Your task to perform on an android device: What's the weather today? Image 0: 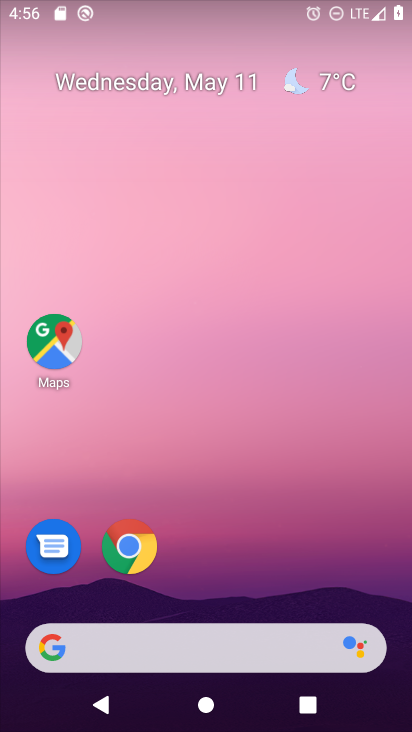
Step 0: drag from (203, 660) to (227, 128)
Your task to perform on an android device: What's the weather today? Image 1: 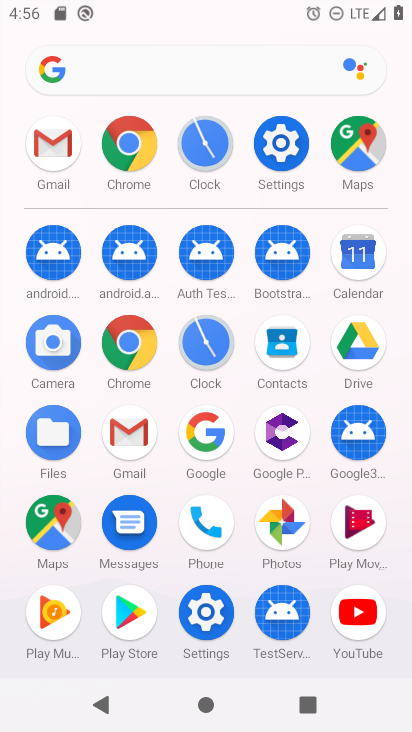
Step 1: click (124, 362)
Your task to perform on an android device: What's the weather today? Image 2: 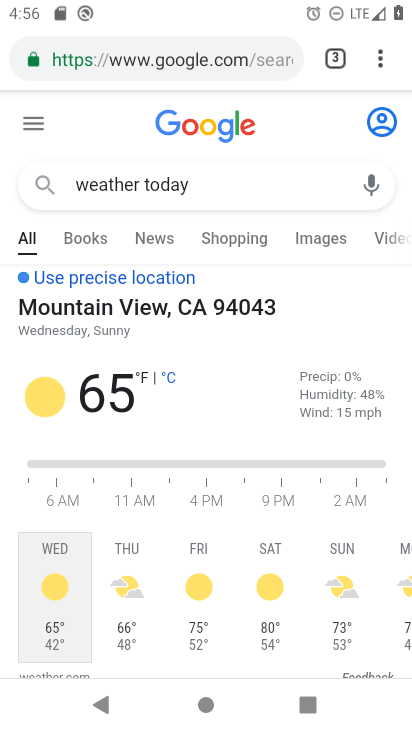
Step 2: click (193, 51)
Your task to perform on an android device: What's the weather today? Image 3: 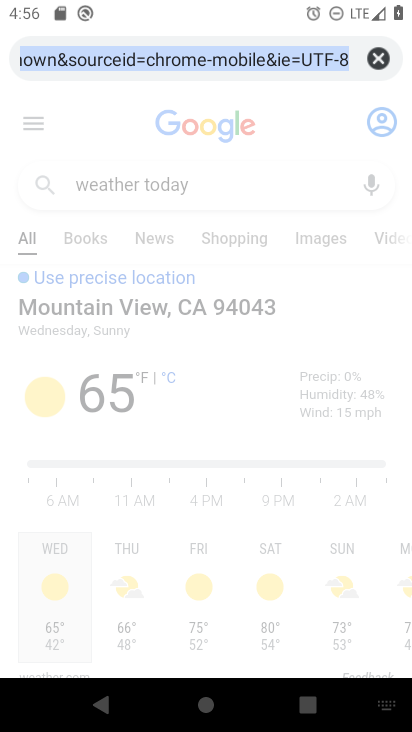
Step 3: task complete